Your task to perform on an android device: Open Google Chrome and open the bookmarks view Image 0: 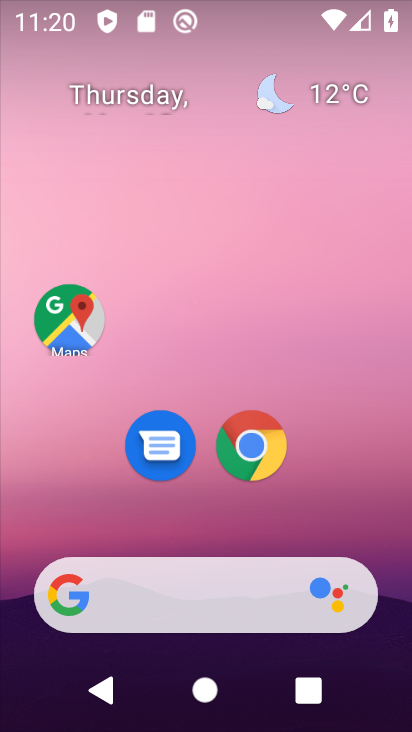
Step 0: click (262, 448)
Your task to perform on an android device: Open Google Chrome and open the bookmarks view Image 1: 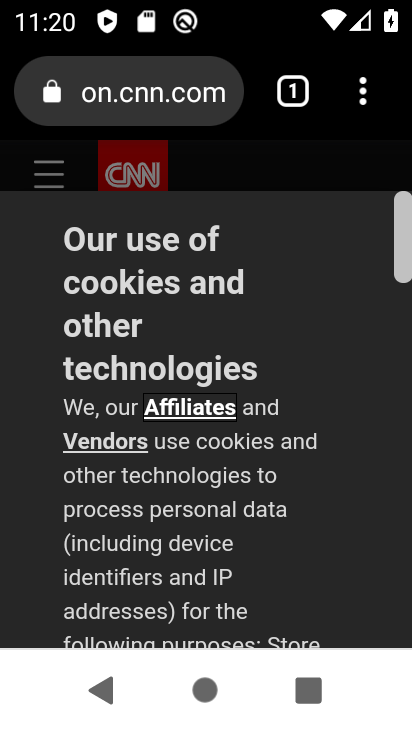
Step 1: task complete